Your task to perform on an android device: Open Wikipedia Image 0: 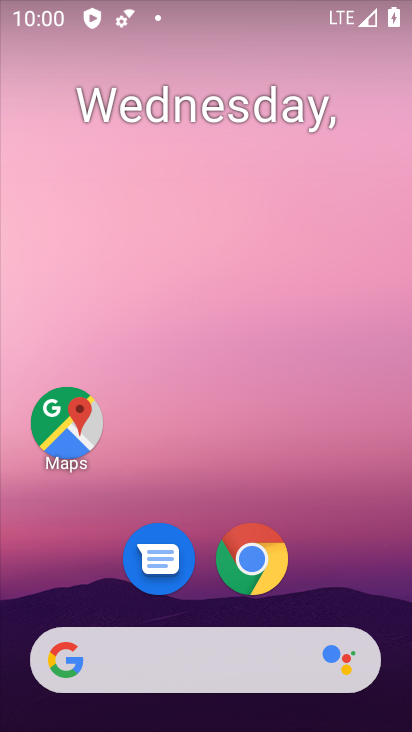
Step 0: drag from (384, 521) to (338, 91)
Your task to perform on an android device: Open Wikipedia Image 1: 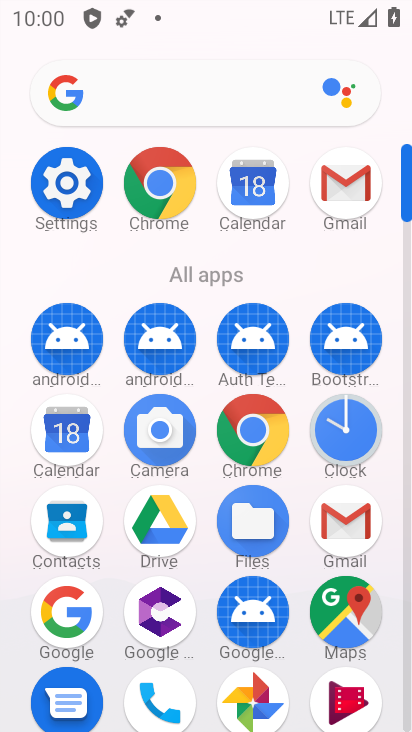
Step 1: click (180, 204)
Your task to perform on an android device: Open Wikipedia Image 2: 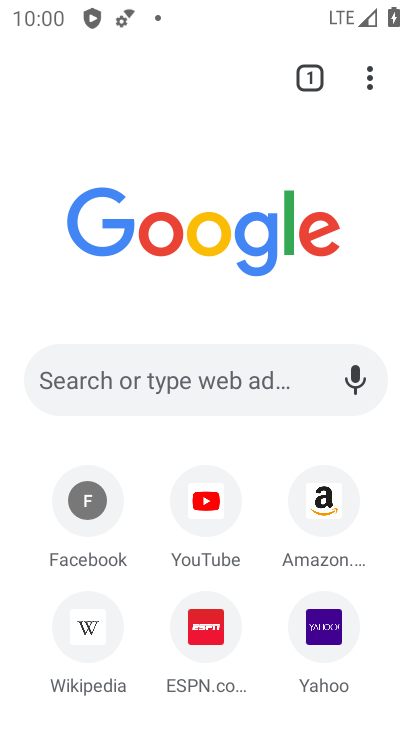
Step 2: drag from (395, 607) to (328, 273)
Your task to perform on an android device: Open Wikipedia Image 3: 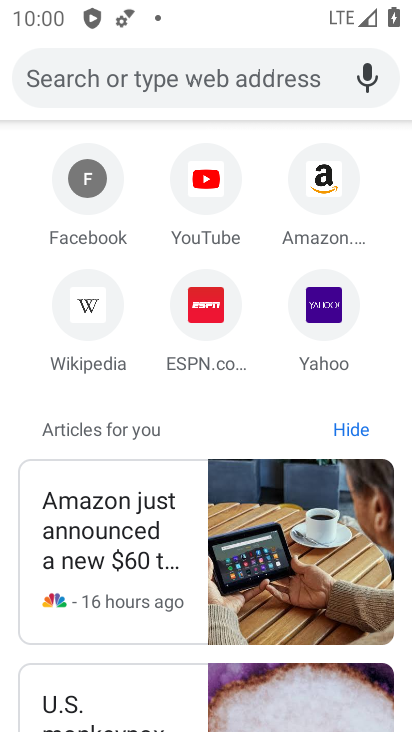
Step 3: click (97, 326)
Your task to perform on an android device: Open Wikipedia Image 4: 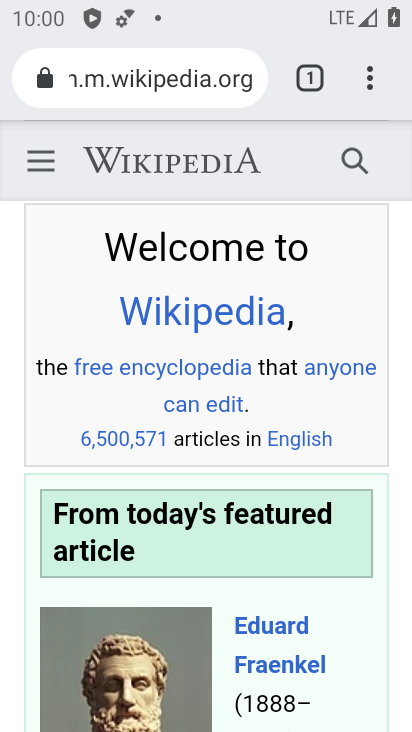
Step 4: task complete